Your task to perform on an android device: turn on bluetooth scan Image 0: 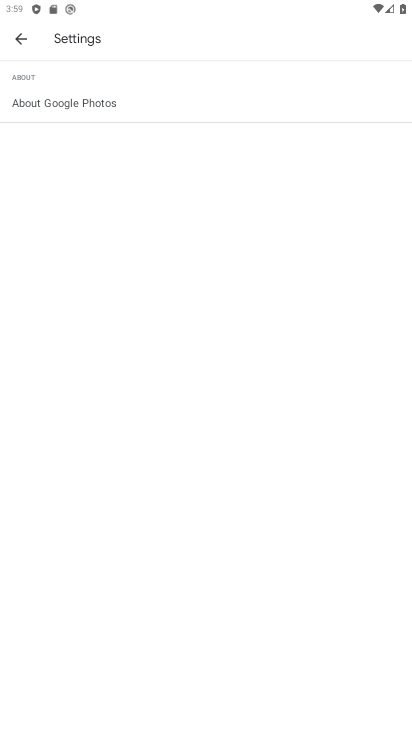
Step 0: press home button
Your task to perform on an android device: turn on bluetooth scan Image 1: 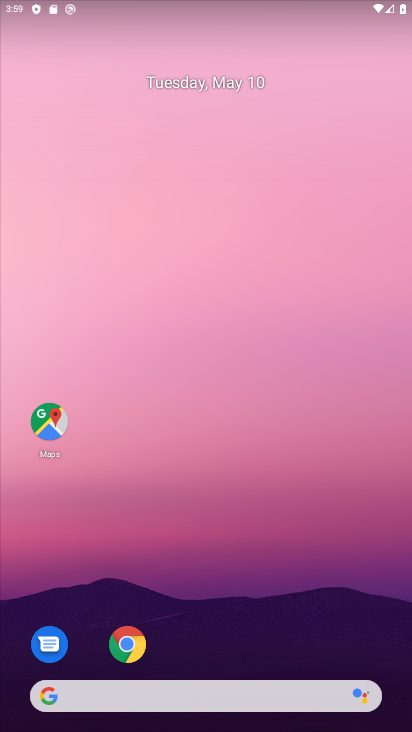
Step 1: drag from (206, 591) to (298, 287)
Your task to perform on an android device: turn on bluetooth scan Image 2: 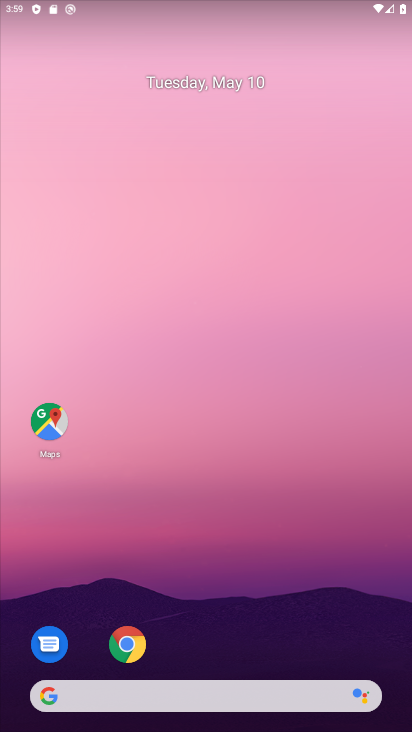
Step 2: drag from (217, 619) to (231, 281)
Your task to perform on an android device: turn on bluetooth scan Image 3: 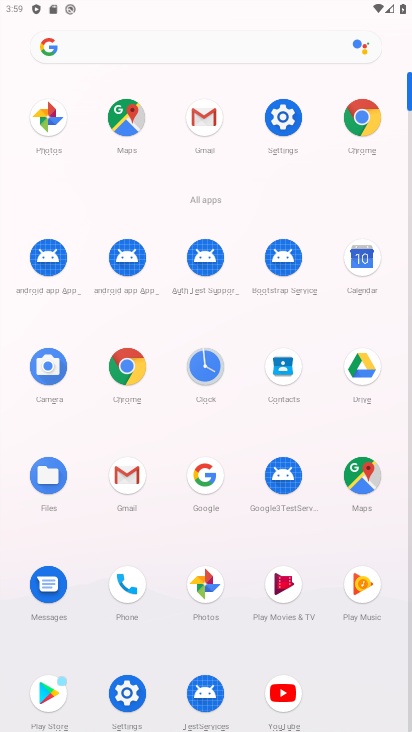
Step 3: click (278, 116)
Your task to perform on an android device: turn on bluetooth scan Image 4: 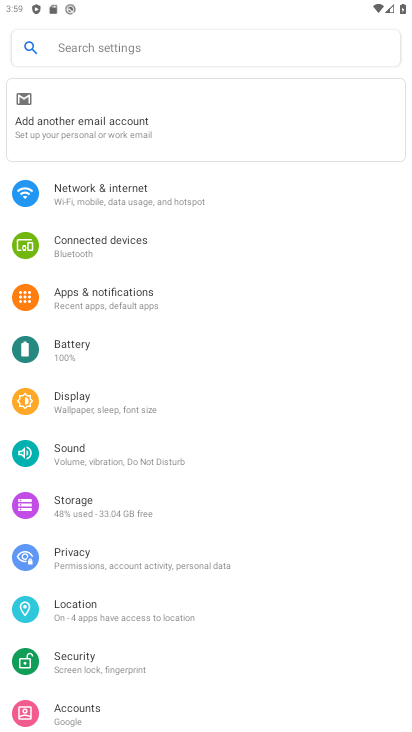
Step 4: click (111, 616)
Your task to perform on an android device: turn on bluetooth scan Image 5: 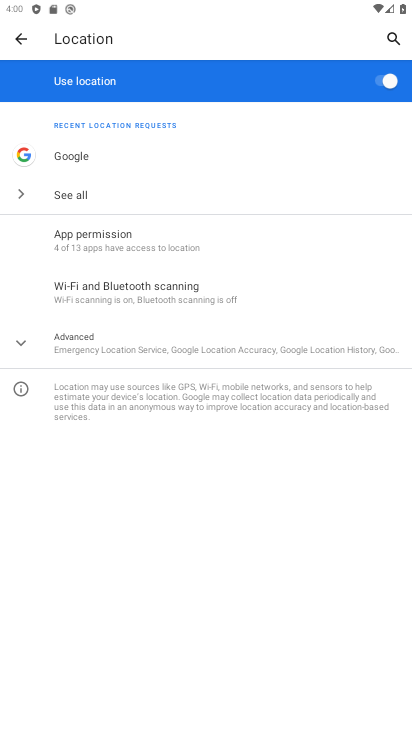
Step 5: click (87, 291)
Your task to perform on an android device: turn on bluetooth scan Image 6: 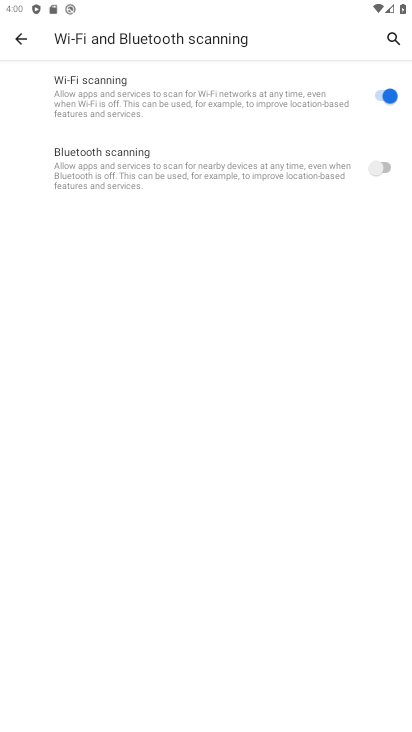
Step 6: click (380, 167)
Your task to perform on an android device: turn on bluetooth scan Image 7: 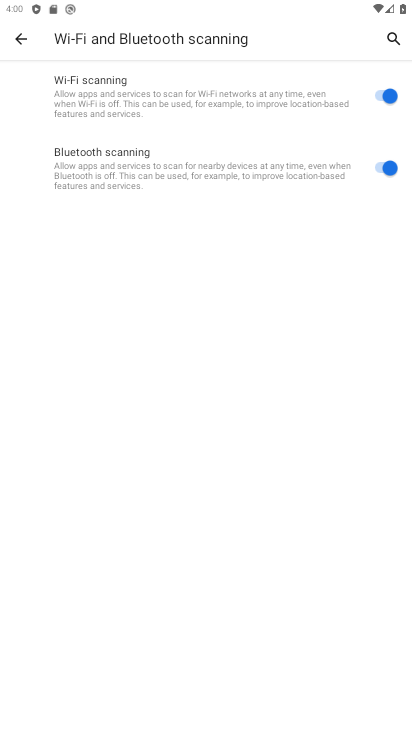
Step 7: task complete